Your task to perform on an android device: Go to wifi settings Image 0: 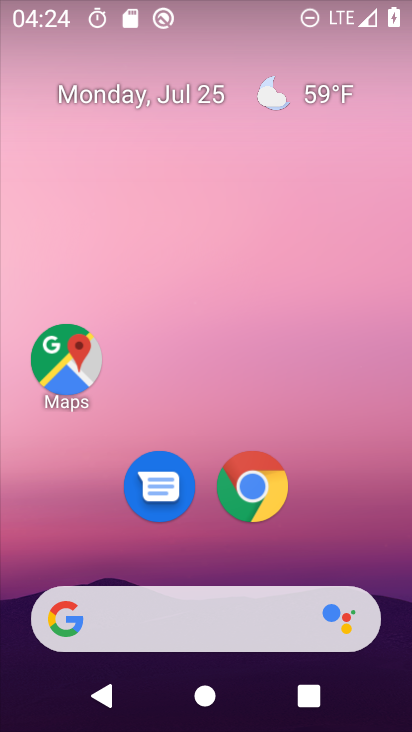
Step 0: drag from (178, 8) to (190, 579)
Your task to perform on an android device: Go to wifi settings Image 1: 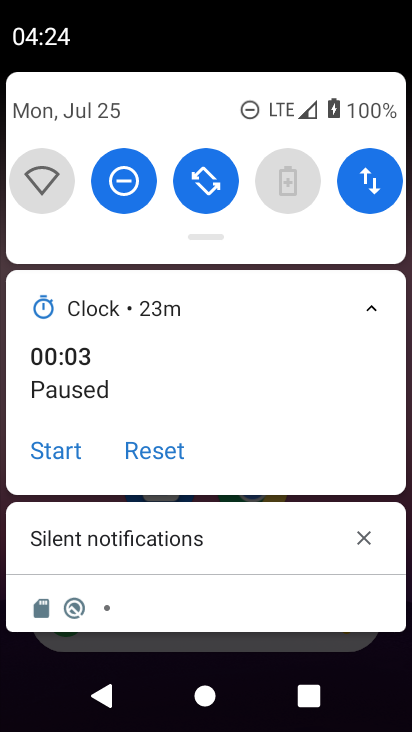
Step 1: click (32, 175)
Your task to perform on an android device: Go to wifi settings Image 2: 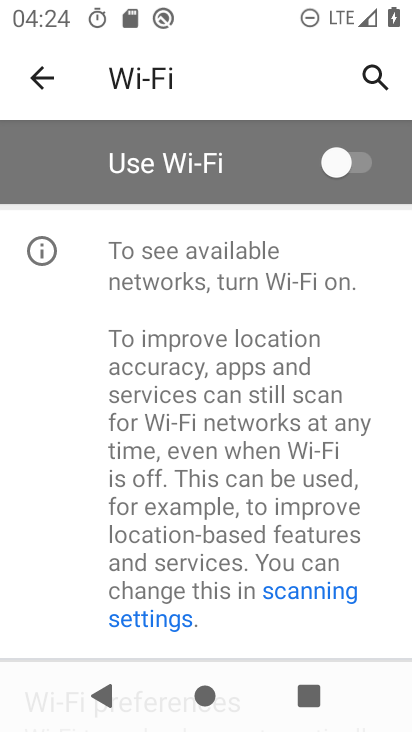
Step 2: task complete